Your task to perform on an android device: Open the map Image 0: 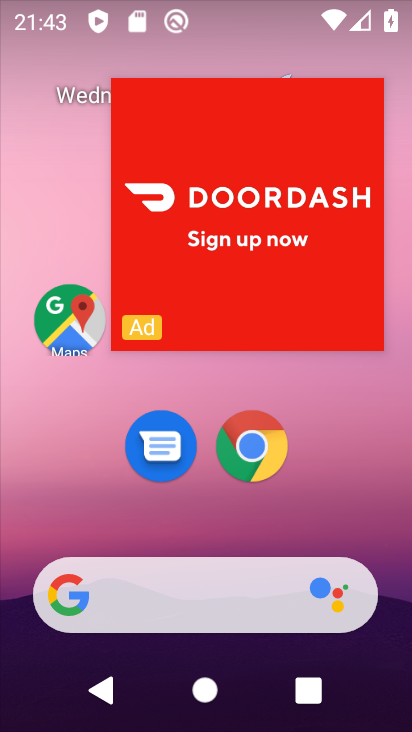
Step 0: drag from (252, 191) to (198, 688)
Your task to perform on an android device: Open the map Image 1: 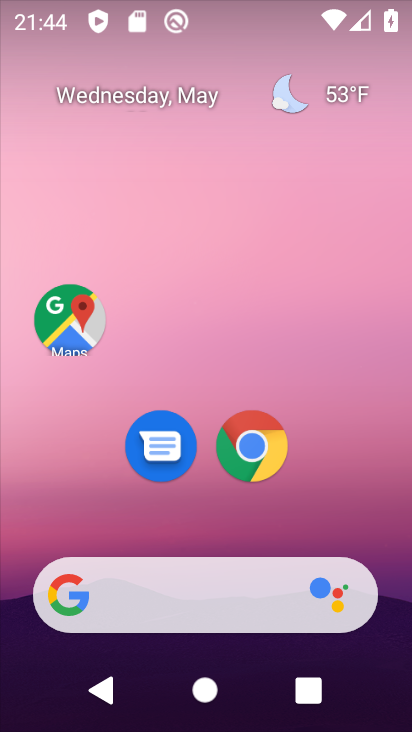
Step 1: click (86, 331)
Your task to perform on an android device: Open the map Image 2: 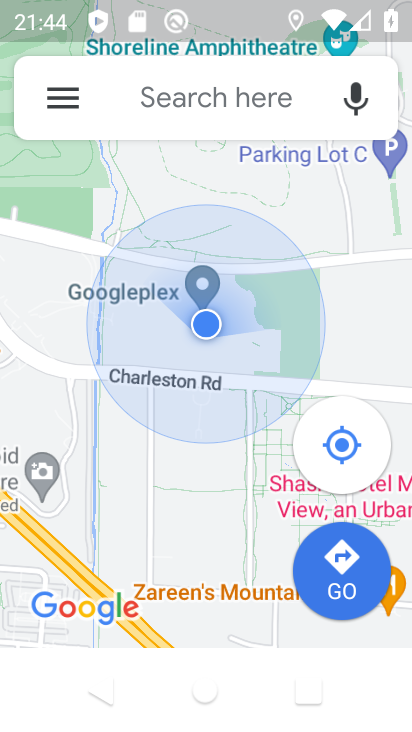
Step 2: task complete